Your task to perform on an android device: Open Yahoo.com Image 0: 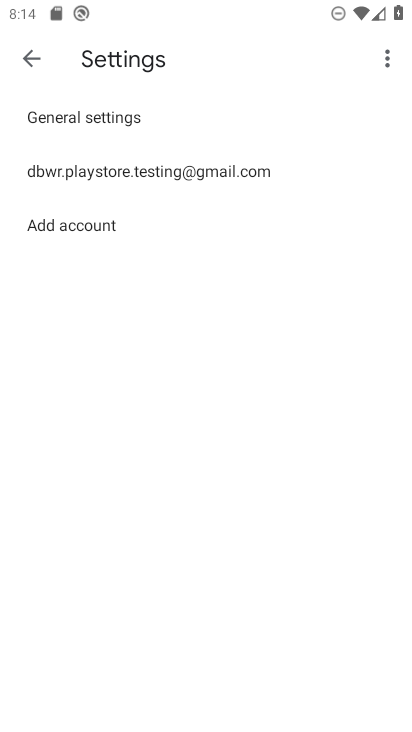
Step 0: press home button
Your task to perform on an android device: Open Yahoo.com Image 1: 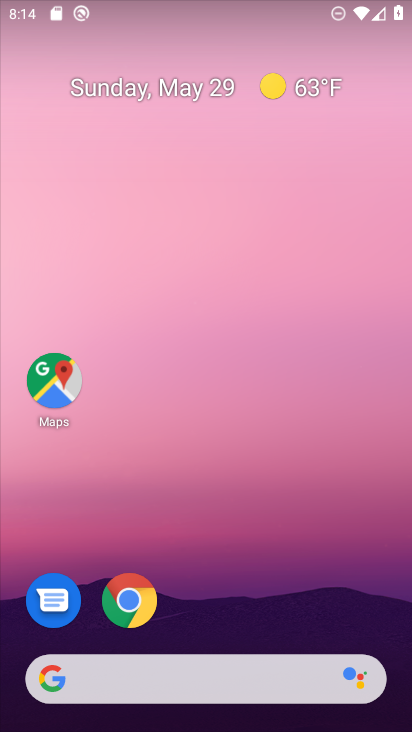
Step 1: click (136, 611)
Your task to perform on an android device: Open Yahoo.com Image 2: 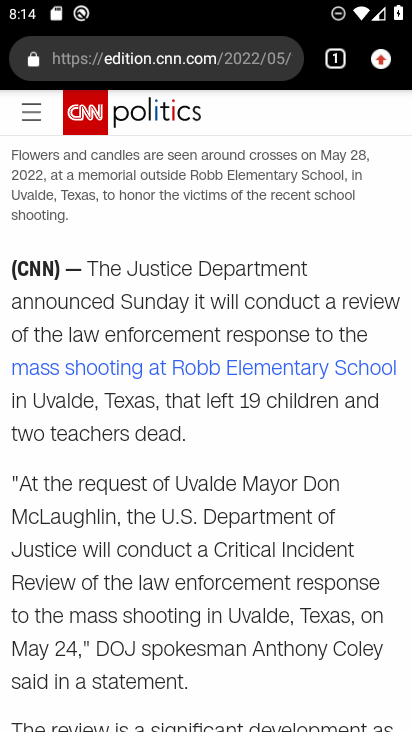
Step 2: click (330, 52)
Your task to perform on an android device: Open Yahoo.com Image 3: 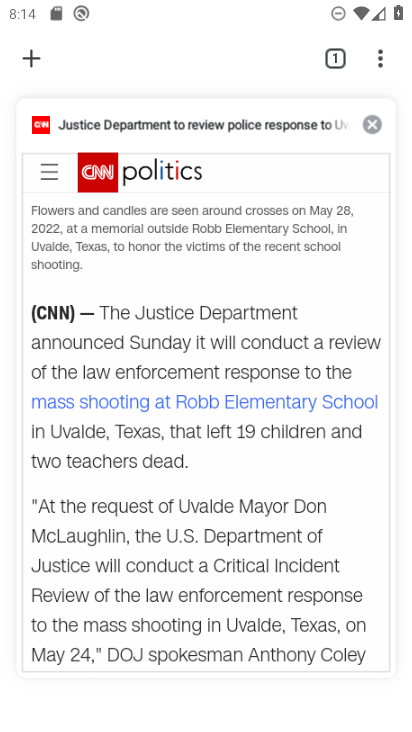
Step 3: click (376, 130)
Your task to perform on an android device: Open Yahoo.com Image 4: 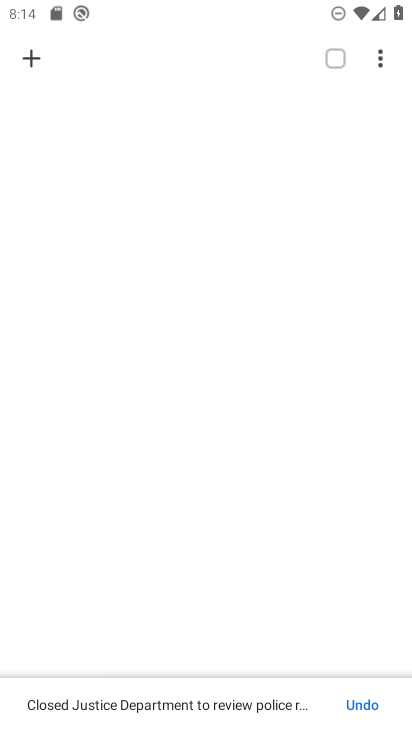
Step 4: click (42, 55)
Your task to perform on an android device: Open Yahoo.com Image 5: 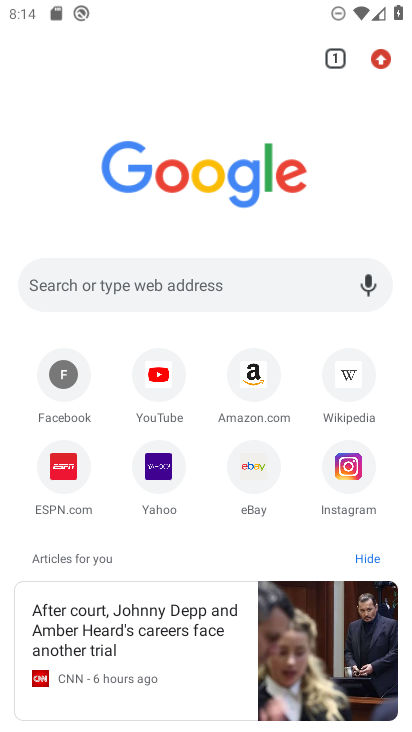
Step 5: click (165, 476)
Your task to perform on an android device: Open Yahoo.com Image 6: 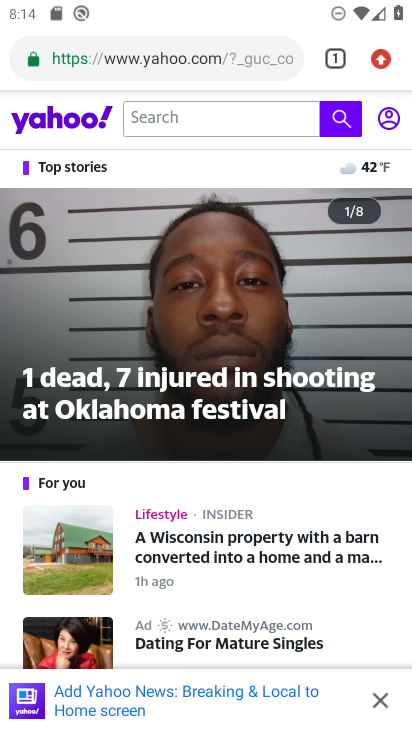
Step 6: task complete